Your task to perform on an android device: turn on sleep mode Image 0: 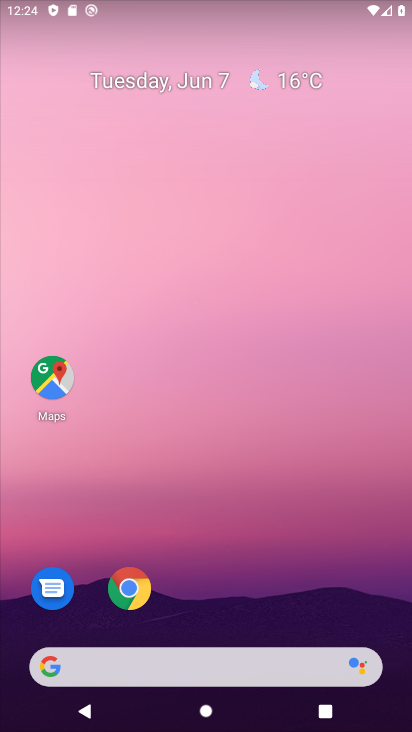
Step 0: task complete